Your task to perform on an android device: toggle improve location accuracy Image 0: 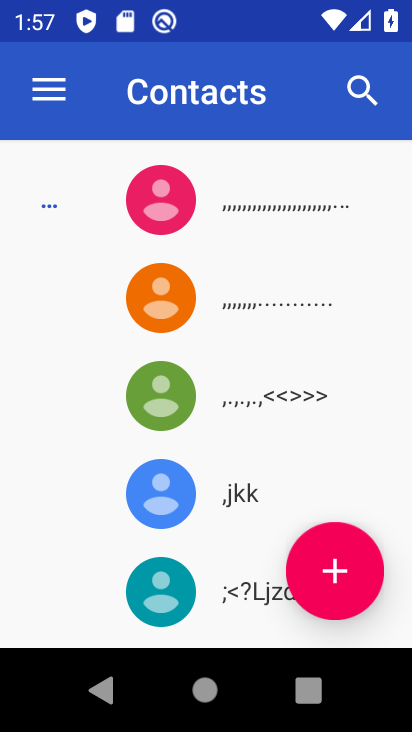
Step 0: press home button
Your task to perform on an android device: toggle improve location accuracy Image 1: 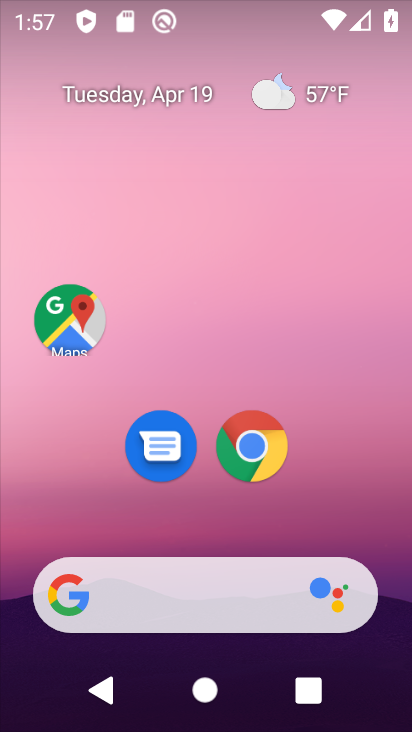
Step 1: drag from (320, 490) to (214, 4)
Your task to perform on an android device: toggle improve location accuracy Image 2: 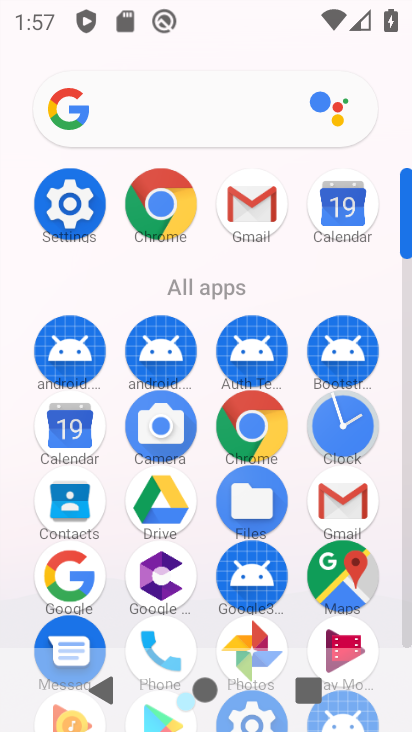
Step 2: click (60, 217)
Your task to perform on an android device: toggle improve location accuracy Image 3: 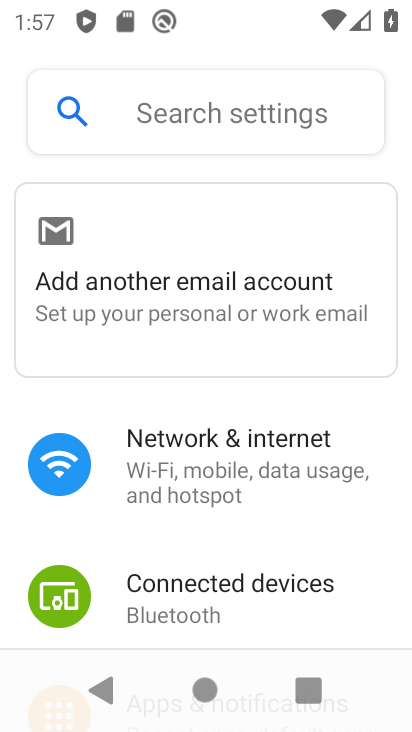
Step 3: drag from (258, 509) to (197, 144)
Your task to perform on an android device: toggle improve location accuracy Image 4: 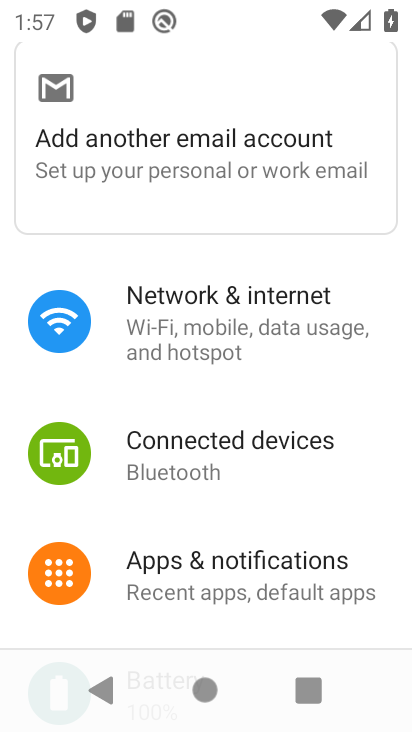
Step 4: drag from (286, 568) to (257, 170)
Your task to perform on an android device: toggle improve location accuracy Image 5: 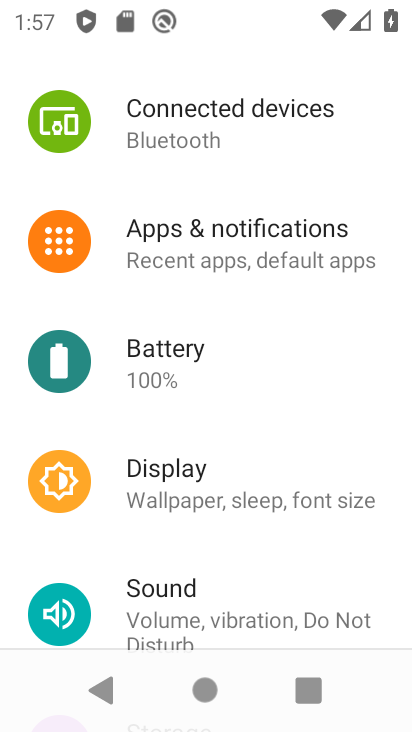
Step 5: drag from (316, 566) to (264, 183)
Your task to perform on an android device: toggle improve location accuracy Image 6: 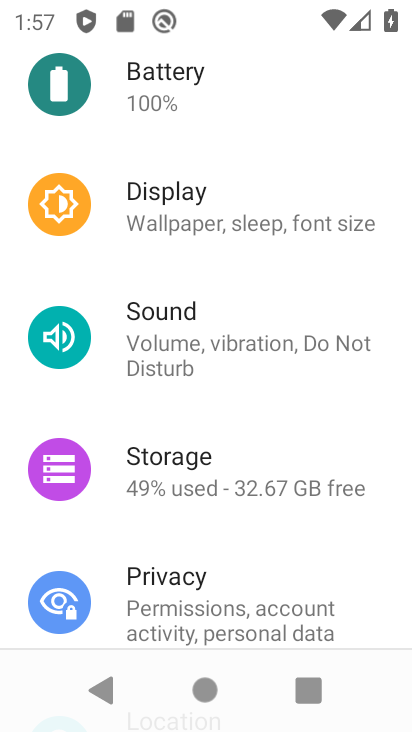
Step 6: drag from (315, 553) to (243, 261)
Your task to perform on an android device: toggle improve location accuracy Image 7: 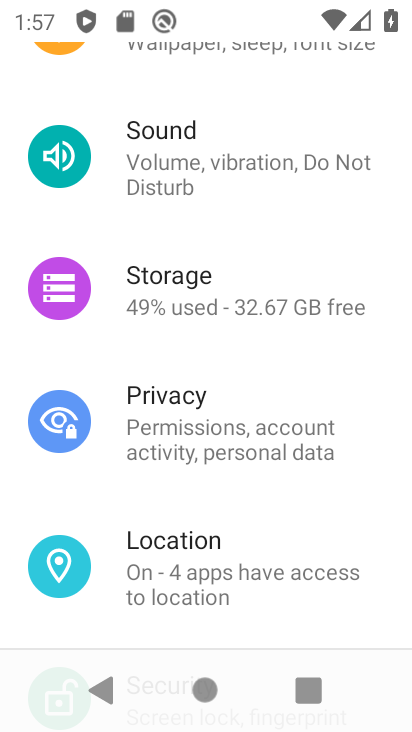
Step 7: click (166, 248)
Your task to perform on an android device: toggle improve location accuracy Image 8: 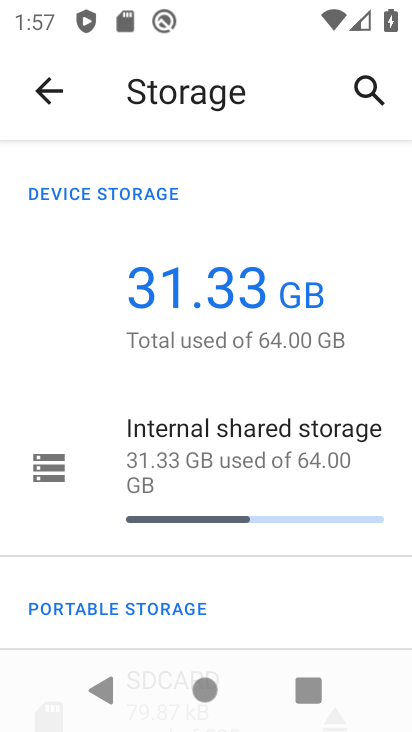
Step 8: click (56, 89)
Your task to perform on an android device: toggle improve location accuracy Image 9: 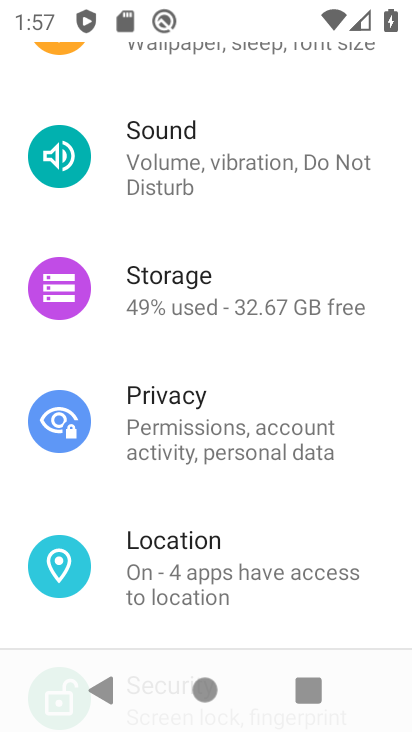
Step 9: click (205, 561)
Your task to perform on an android device: toggle improve location accuracy Image 10: 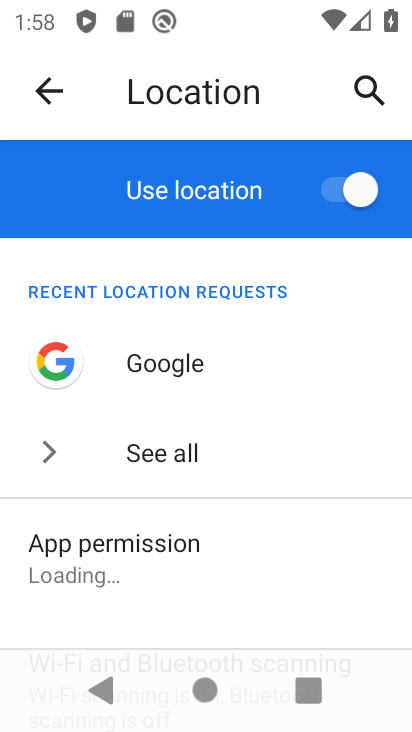
Step 10: drag from (86, 477) to (78, 98)
Your task to perform on an android device: toggle improve location accuracy Image 11: 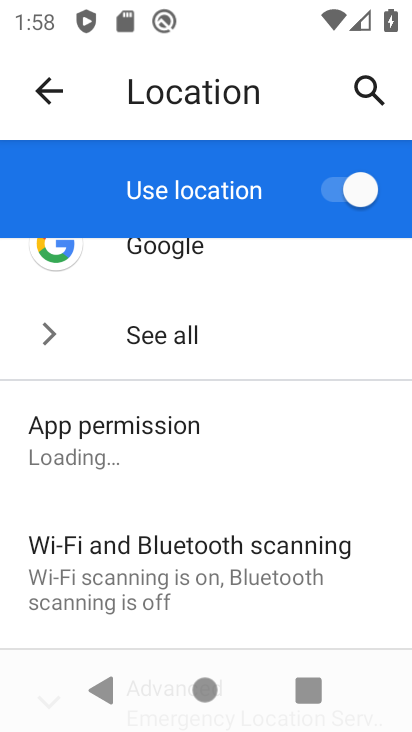
Step 11: drag from (193, 559) to (224, 237)
Your task to perform on an android device: toggle improve location accuracy Image 12: 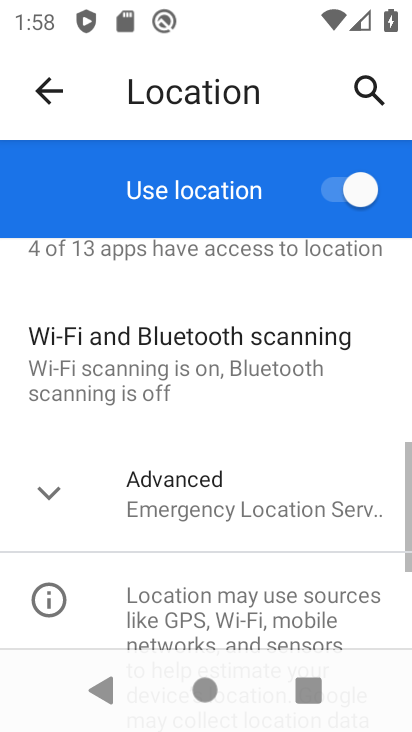
Step 12: drag from (196, 668) to (130, 291)
Your task to perform on an android device: toggle improve location accuracy Image 13: 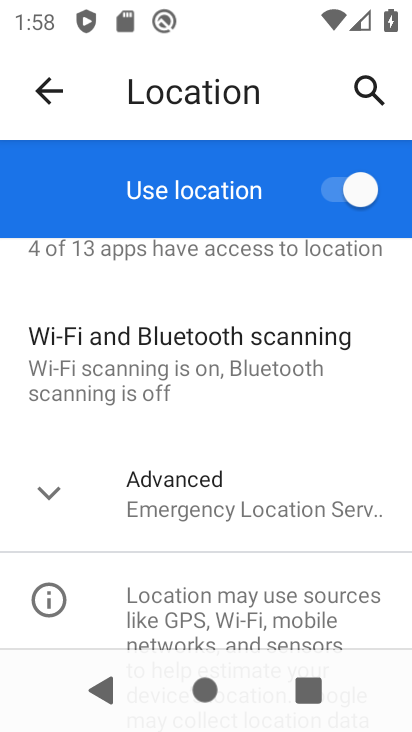
Step 13: click (186, 481)
Your task to perform on an android device: toggle improve location accuracy Image 14: 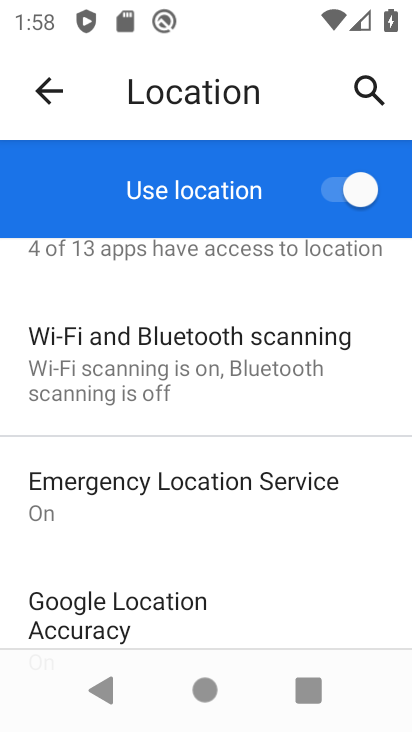
Step 14: drag from (208, 526) to (167, 139)
Your task to perform on an android device: toggle improve location accuracy Image 15: 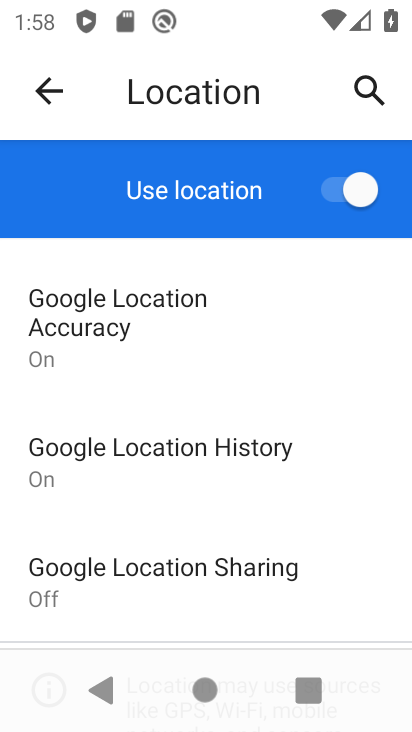
Step 15: drag from (234, 544) to (301, 207)
Your task to perform on an android device: toggle improve location accuracy Image 16: 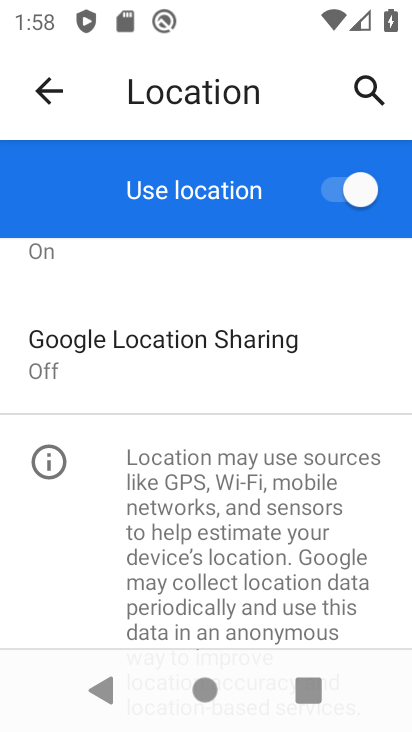
Step 16: drag from (234, 348) to (304, 638)
Your task to perform on an android device: toggle improve location accuracy Image 17: 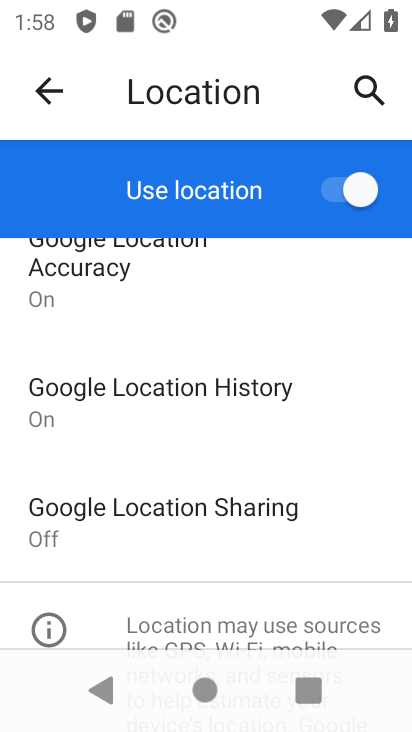
Step 17: drag from (168, 292) to (221, 514)
Your task to perform on an android device: toggle improve location accuracy Image 18: 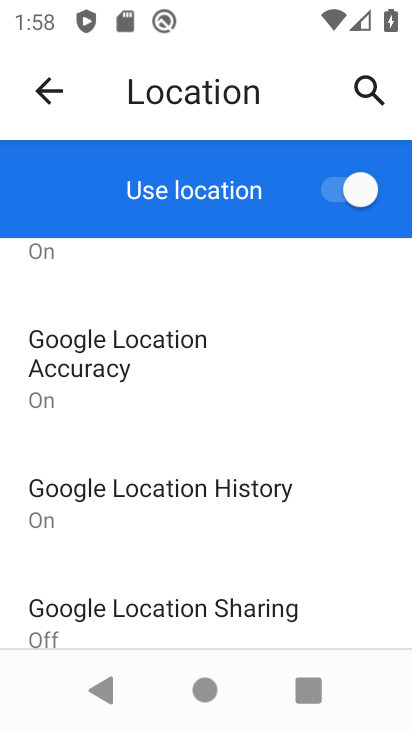
Step 18: click (103, 362)
Your task to perform on an android device: toggle improve location accuracy Image 19: 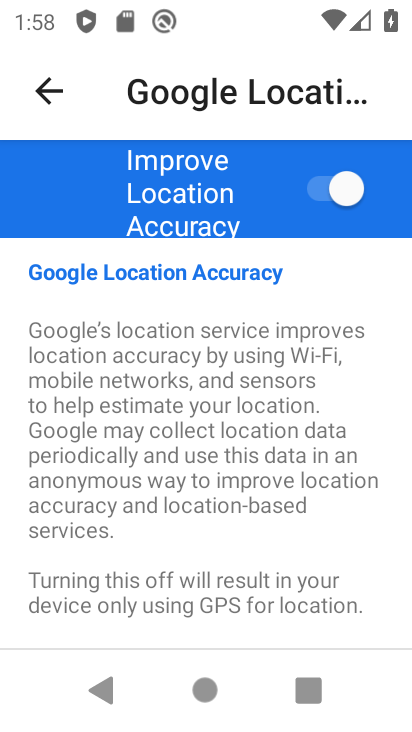
Step 19: click (316, 183)
Your task to perform on an android device: toggle improve location accuracy Image 20: 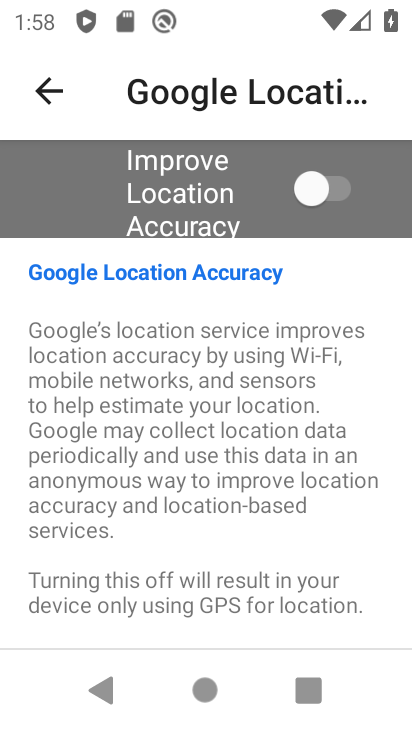
Step 20: task complete